Your task to perform on an android device: Go to display settings Image 0: 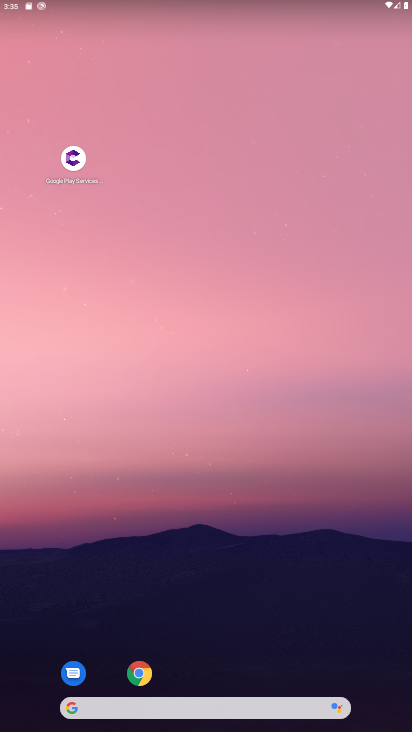
Step 0: drag from (321, 677) to (242, 138)
Your task to perform on an android device: Go to display settings Image 1: 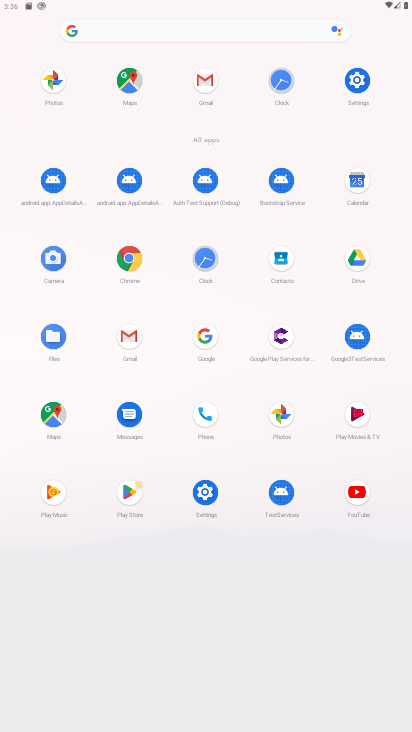
Step 1: click (208, 494)
Your task to perform on an android device: Go to display settings Image 2: 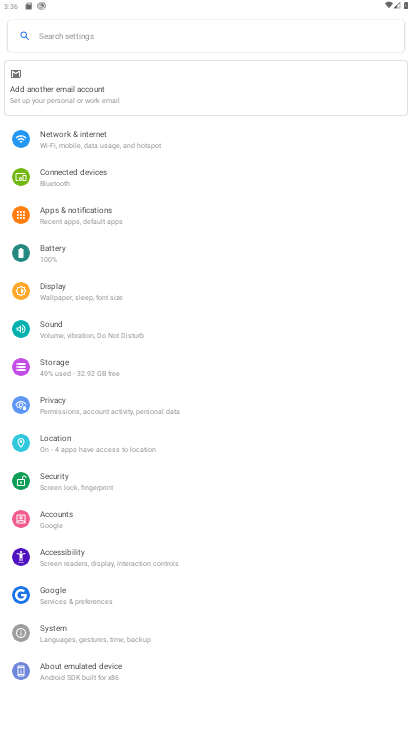
Step 2: click (55, 288)
Your task to perform on an android device: Go to display settings Image 3: 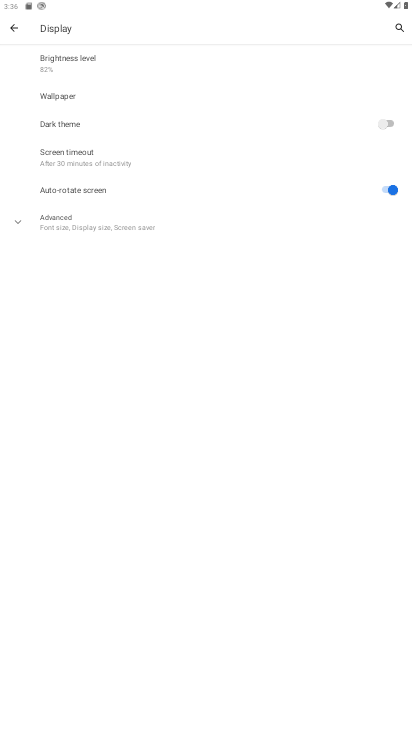
Step 3: task complete